Your task to perform on an android device: turn off location Image 0: 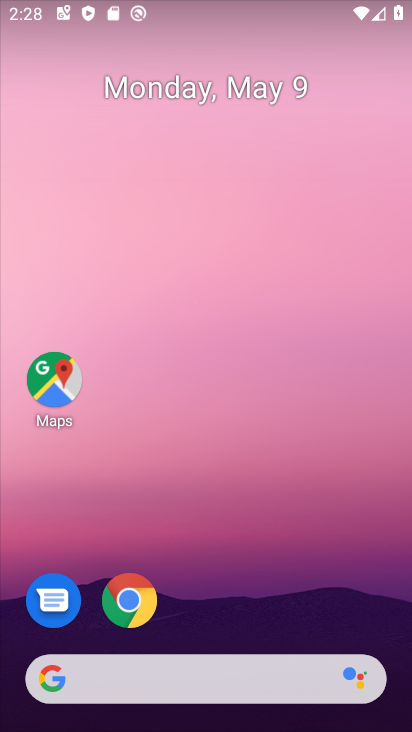
Step 0: drag from (242, 636) to (271, 254)
Your task to perform on an android device: turn off location Image 1: 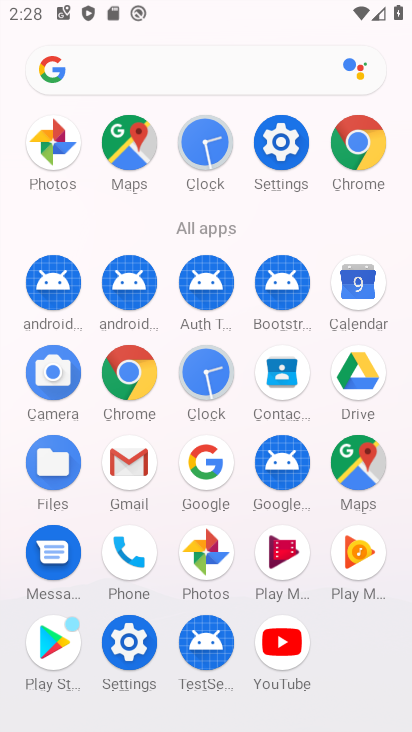
Step 1: click (291, 149)
Your task to perform on an android device: turn off location Image 2: 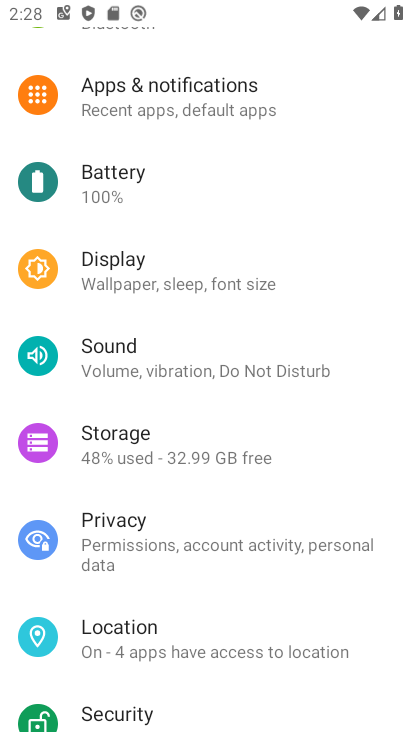
Step 2: click (113, 644)
Your task to perform on an android device: turn off location Image 3: 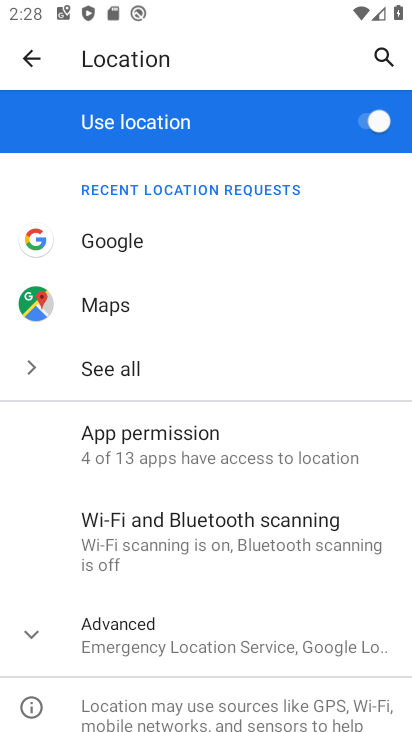
Step 3: drag from (195, 667) to (269, 431)
Your task to perform on an android device: turn off location Image 4: 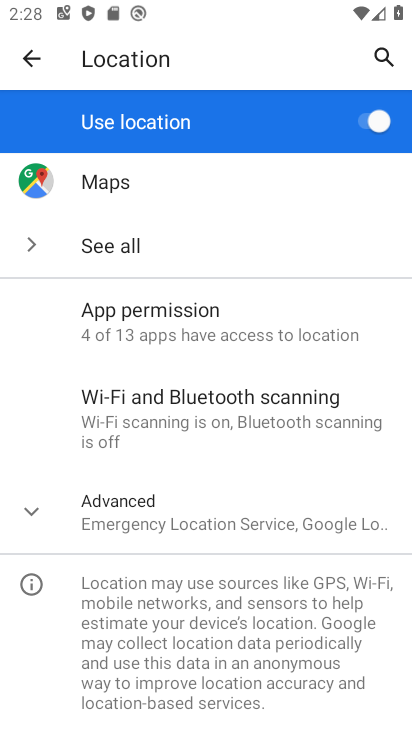
Step 4: click (367, 106)
Your task to perform on an android device: turn off location Image 5: 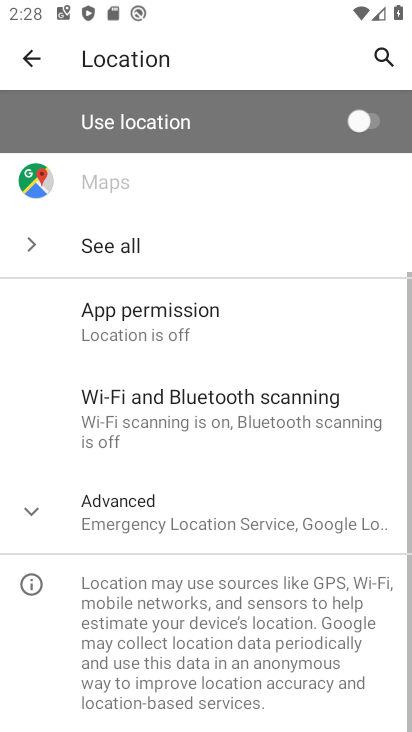
Step 5: task complete